Your task to perform on an android device: turn smart compose on in the gmail app Image 0: 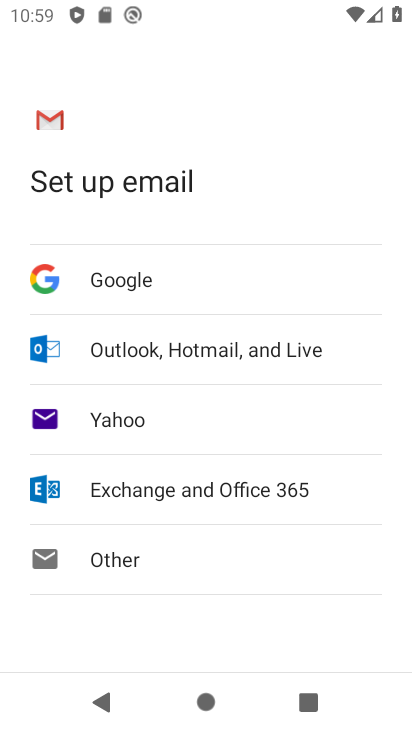
Step 0: press home button
Your task to perform on an android device: turn smart compose on in the gmail app Image 1: 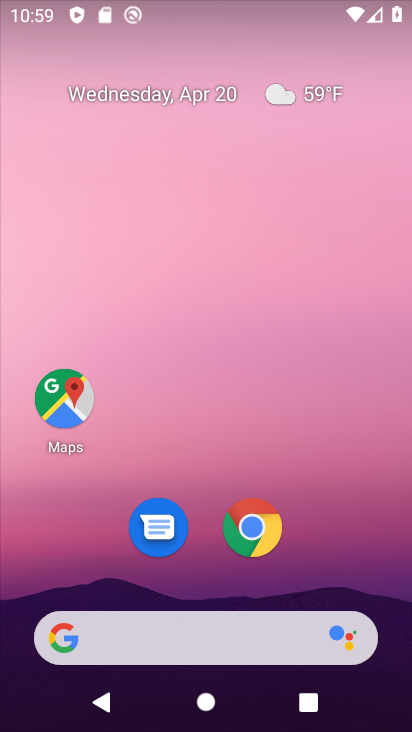
Step 1: drag from (376, 572) to (344, 133)
Your task to perform on an android device: turn smart compose on in the gmail app Image 2: 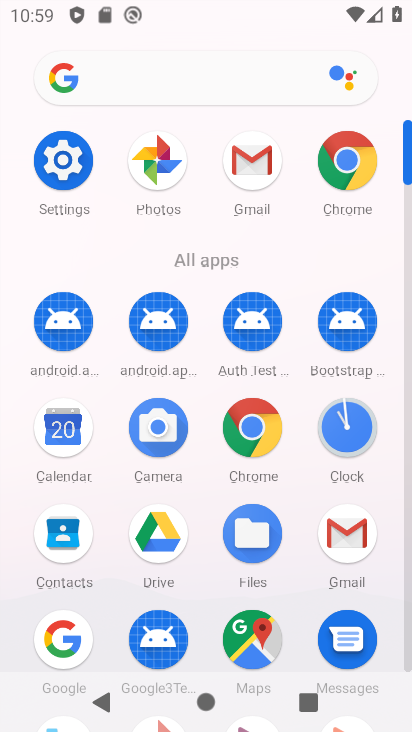
Step 2: click (343, 555)
Your task to perform on an android device: turn smart compose on in the gmail app Image 3: 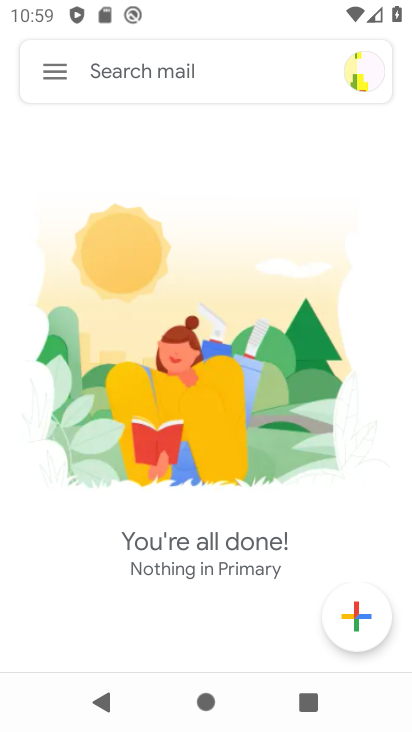
Step 3: click (51, 77)
Your task to perform on an android device: turn smart compose on in the gmail app Image 4: 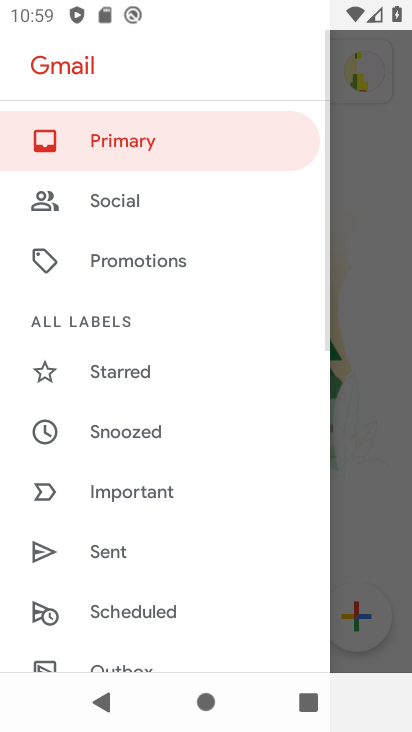
Step 4: drag from (271, 629) to (268, 184)
Your task to perform on an android device: turn smart compose on in the gmail app Image 5: 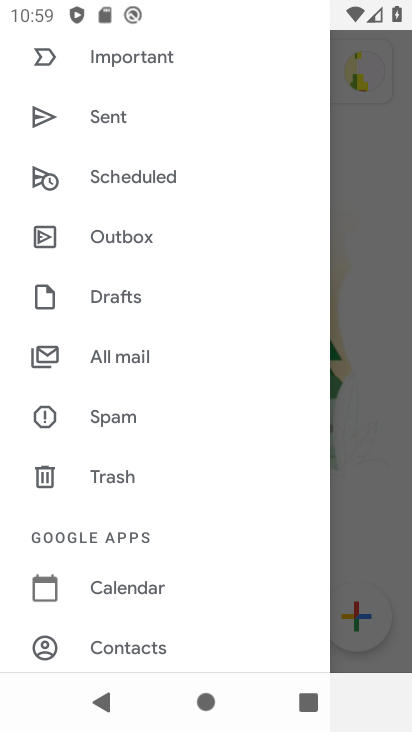
Step 5: drag from (257, 629) to (226, 169)
Your task to perform on an android device: turn smart compose on in the gmail app Image 6: 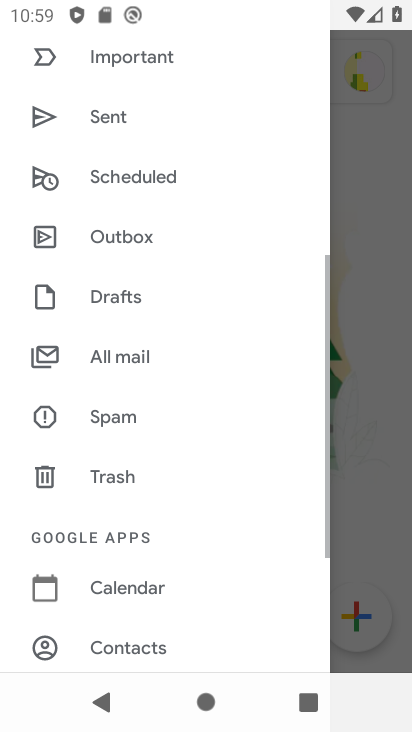
Step 6: drag from (209, 576) to (257, 141)
Your task to perform on an android device: turn smart compose on in the gmail app Image 7: 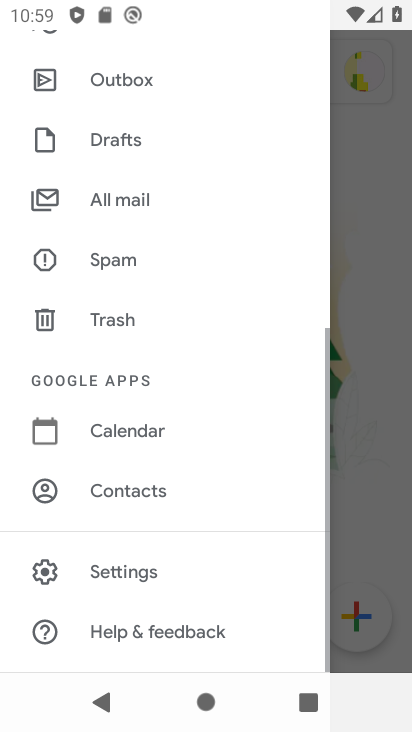
Step 7: click (185, 567)
Your task to perform on an android device: turn smart compose on in the gmail app Image 8: 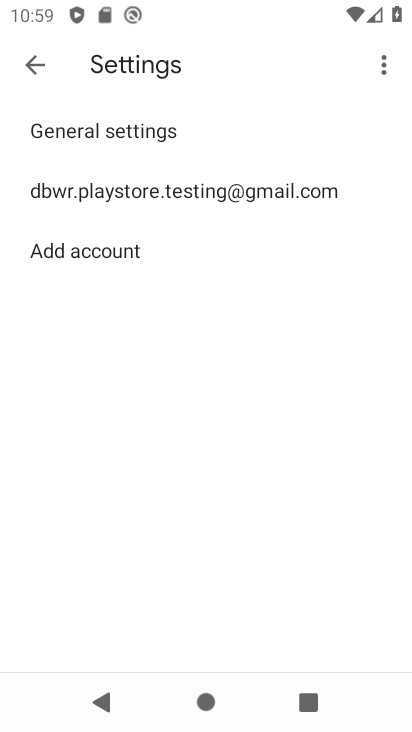
Step 8: click (266, 186)
Your task to perform on an android device: turn smart compose on in the gmail app Image 9: 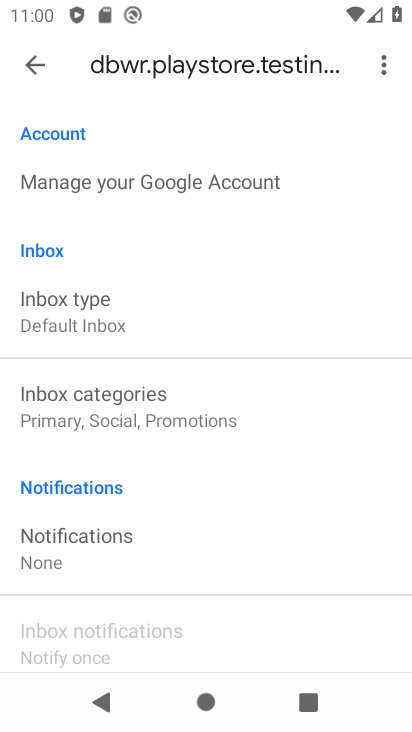
Step 9: task complete